Your task to perform on an android device: What is the recent news? Image 0: 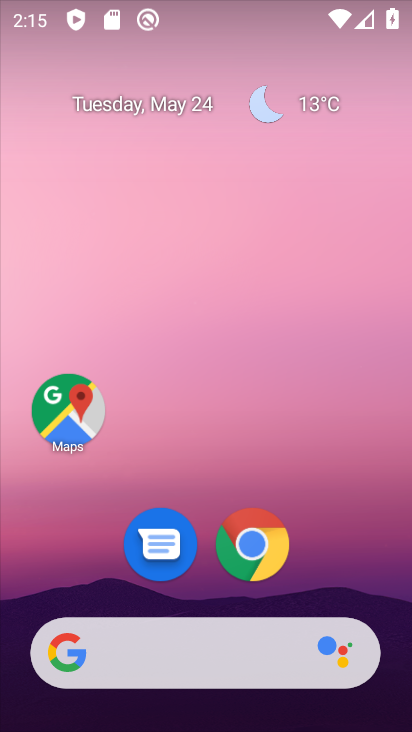
Step 0: drag from (334, 448) to (396, 74)
Your task to perform on an android device: What is the recent news? Image 1: 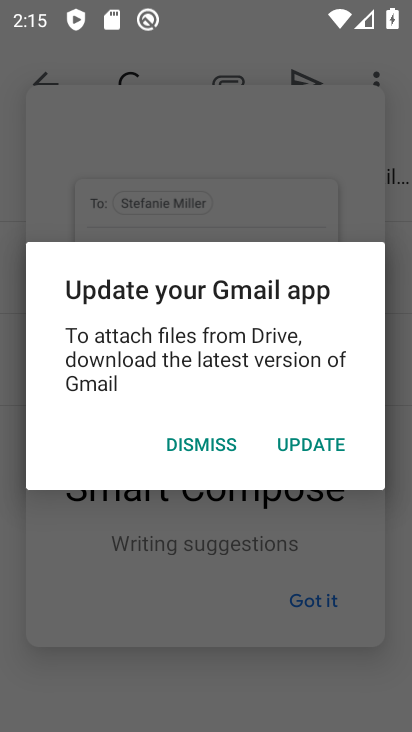
Step 1: press home button
Your task to perform on an android device: What is the recent news? Image 2: 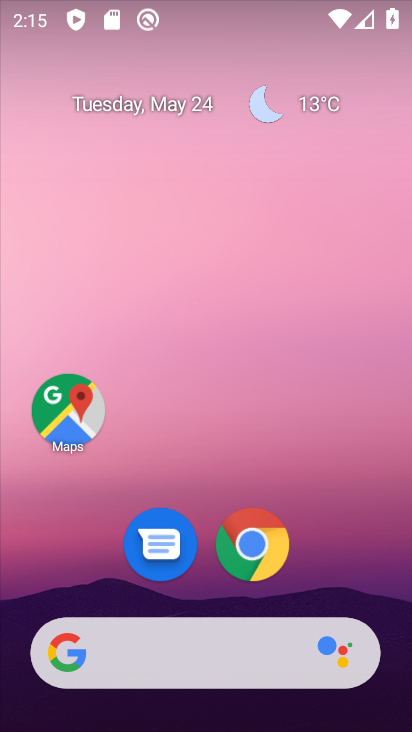
Step 2: click (272, 547)
Your task to perform on an android device: What is the recent news? Image 3: 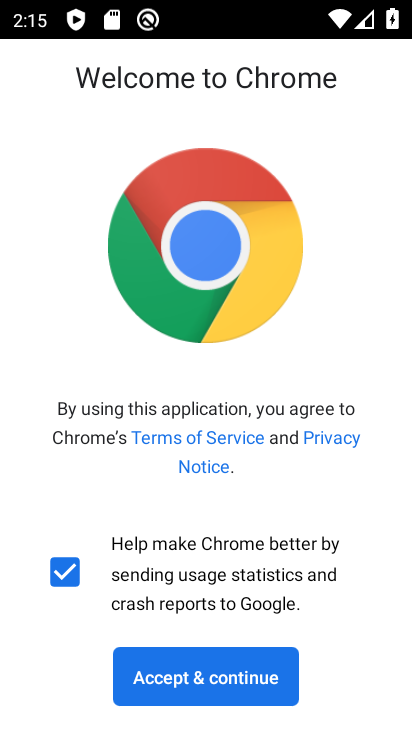
Step 3: click (235, 668)
Your task to perform on an android device: What is the recent news? Image 4: 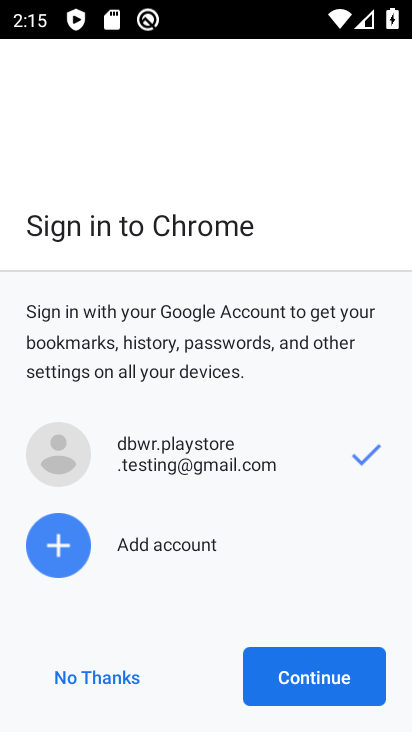
Step 4: click (86, 686)
Your task to perform on an android device: What is the recent news? Image 5: 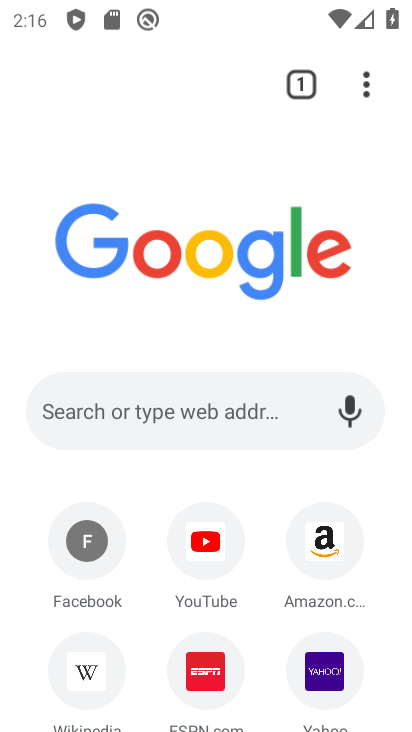
Step 5: task complete